Your task to perform on an android device: add a label to a message in the gmail app Image 0: 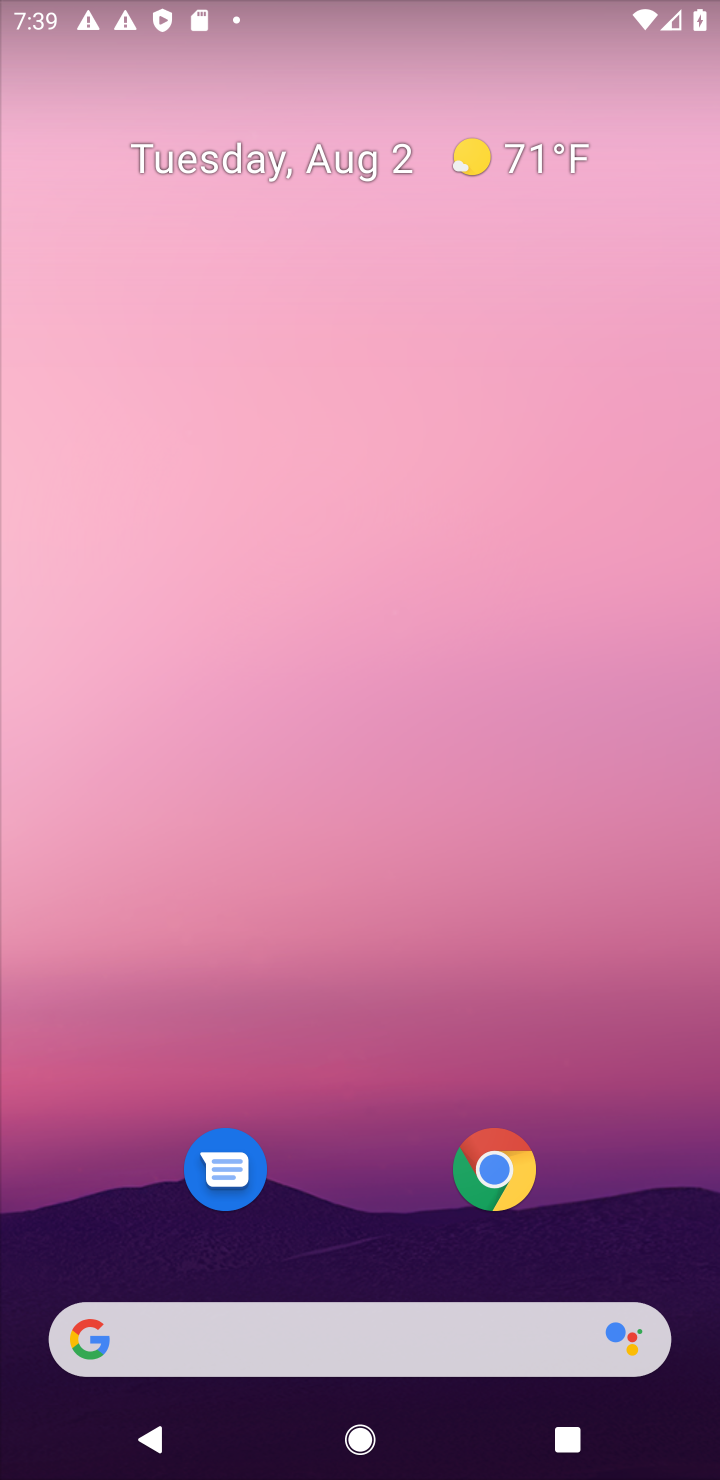
Step 0: drag from (384, 1042) to (394, 69)
Your task to perform on an android device: add a label to a message in the gmail app Image 1: 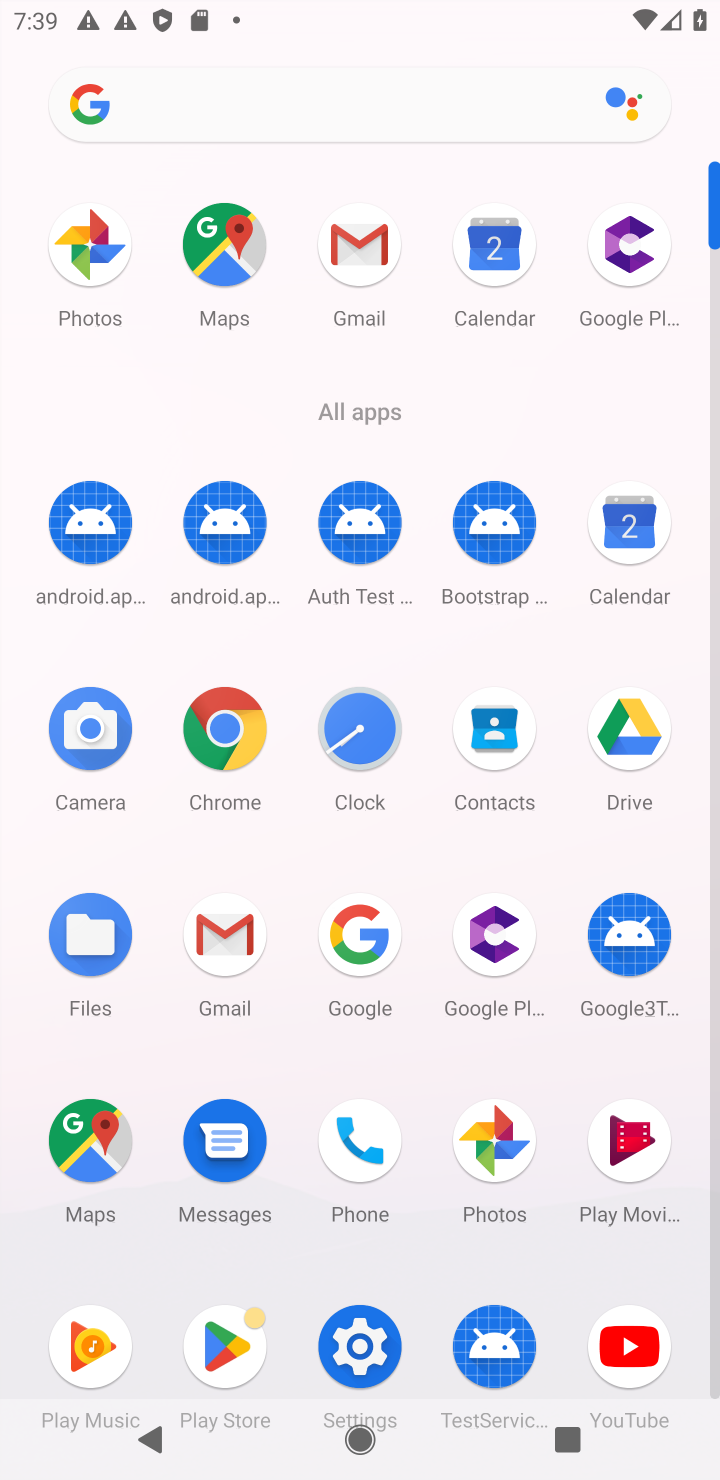
Step 1: click (371, 256)
Your task to perform on an android device: add a label to a message in the gmail app Image 2: 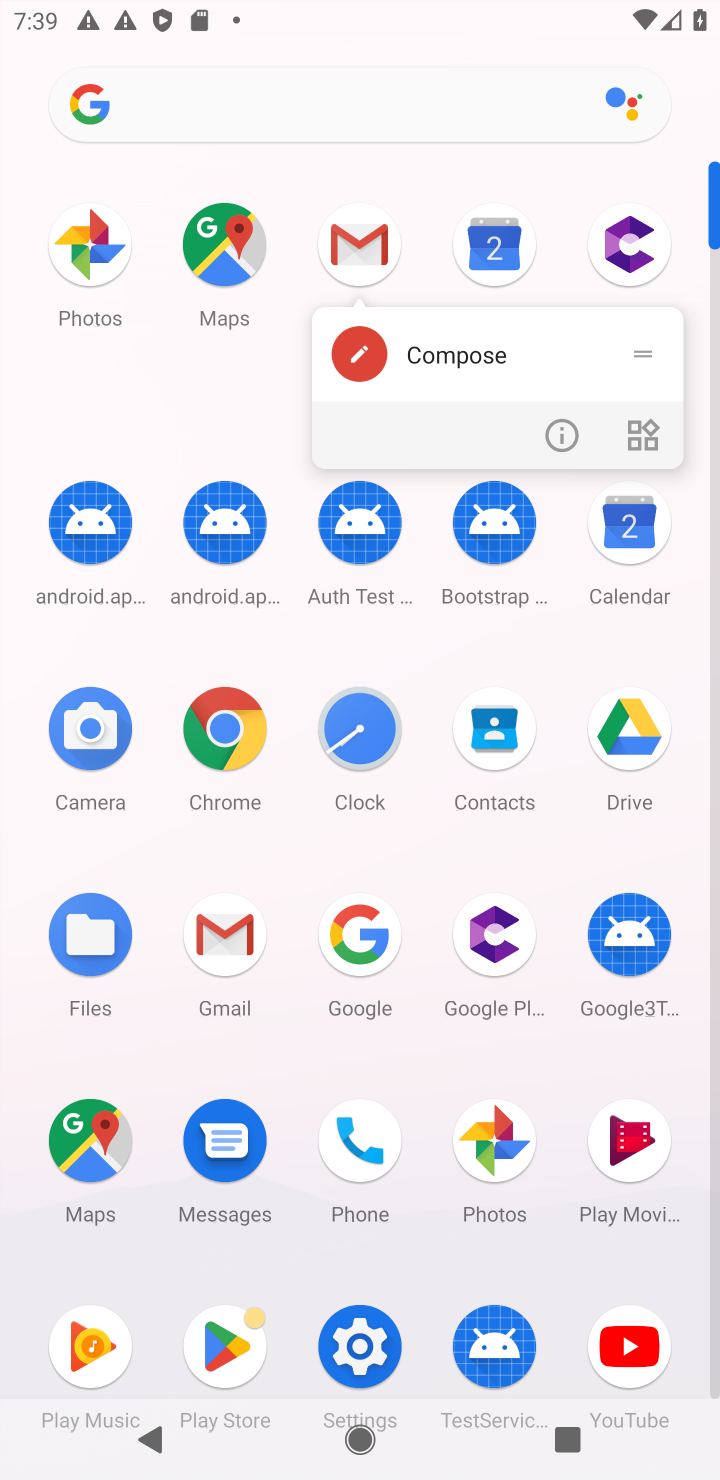
Step 2: click (371, 256)
Your task to perform on an android device: add a label to a message in the gmail app Image 3: 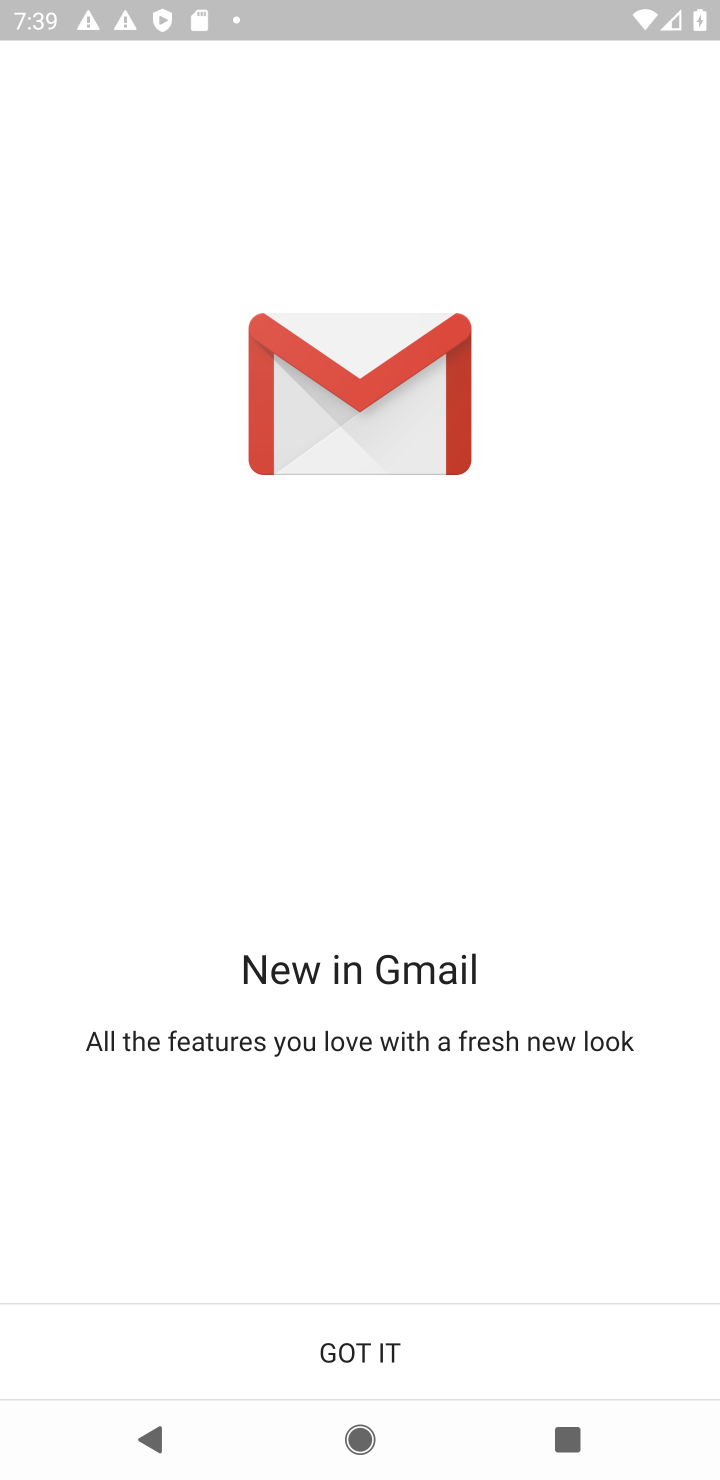
Step 3: click (430, 1340)
Your task to perform on an android device: add a label to a message in the gmail app Image 4: 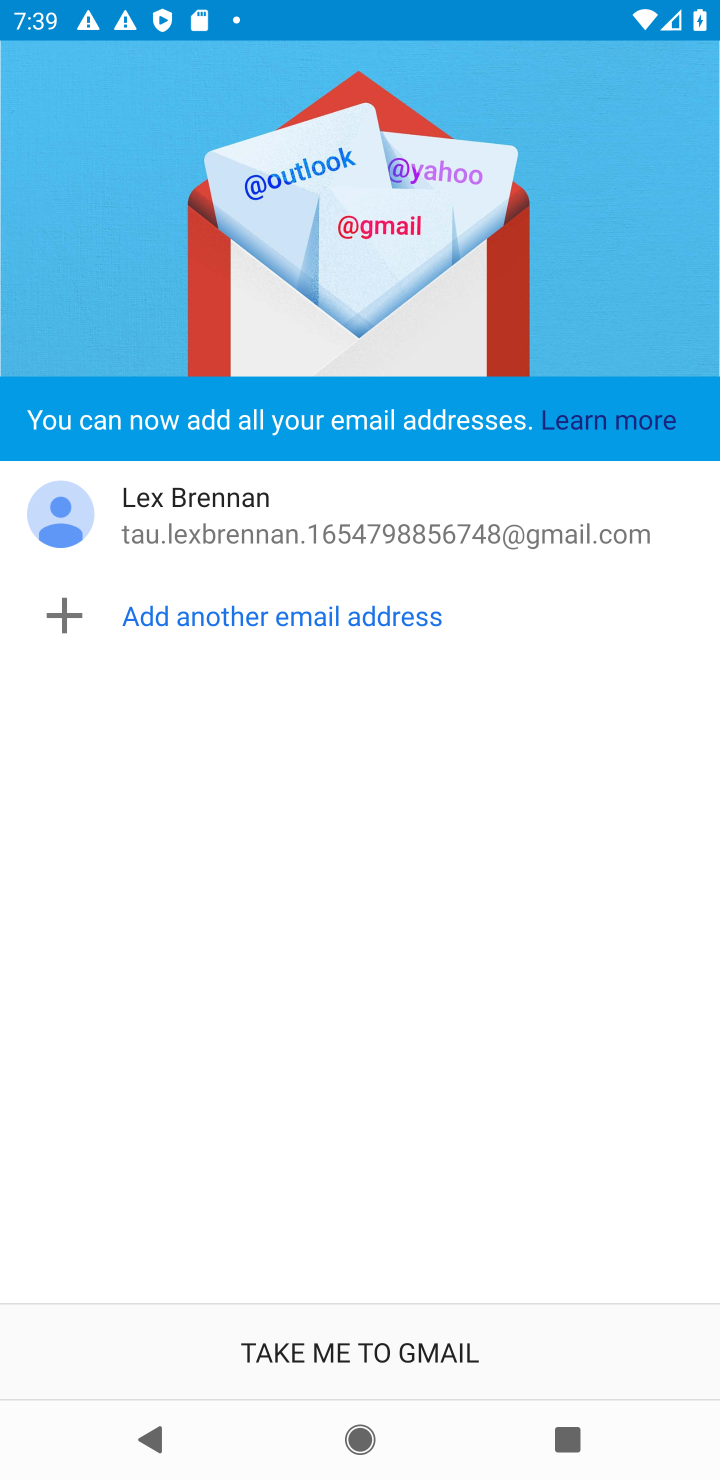
Step 4: click (433, 1340)
Your task to perform on an android device: add a label to a message in the gmail app Image 5: 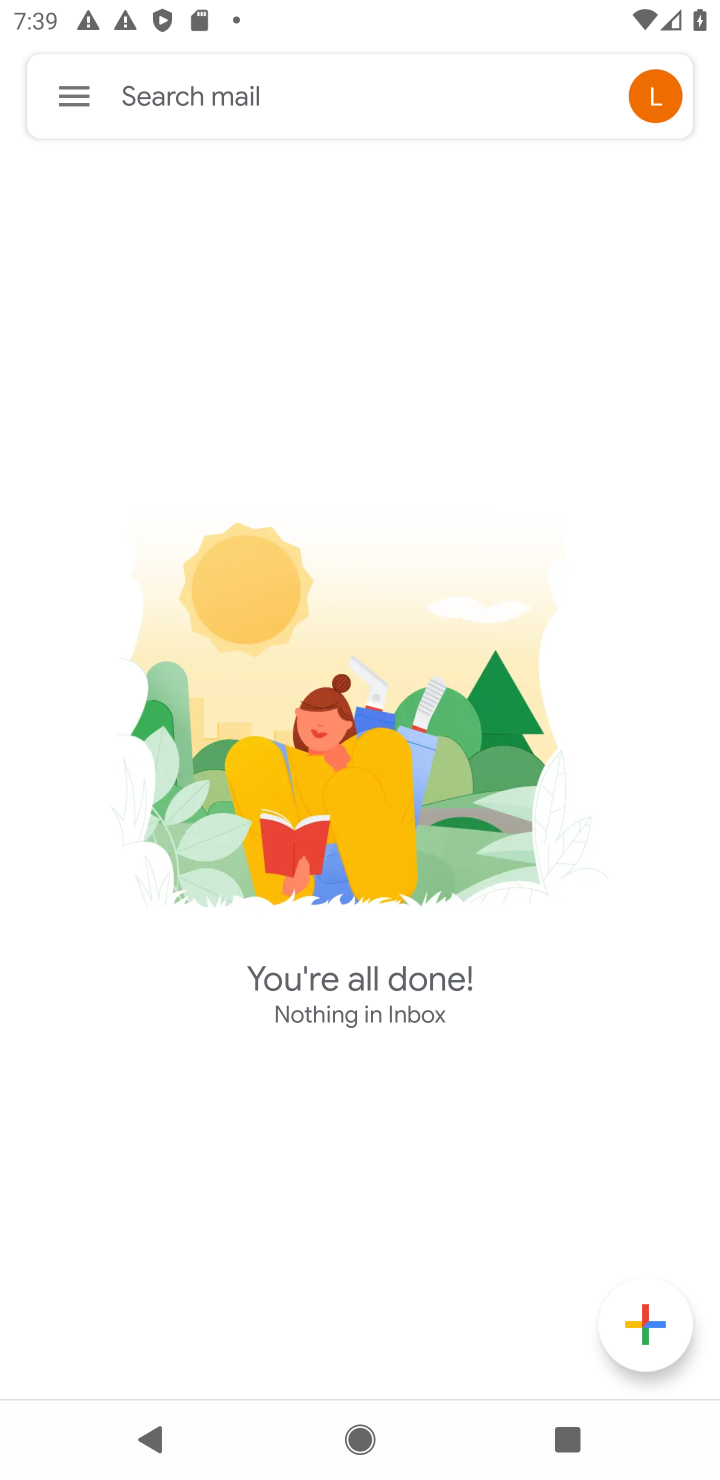
Step 5: click (71, 82)
Your task to perform on an android device: add a label to a message in the gmail app Image 6: 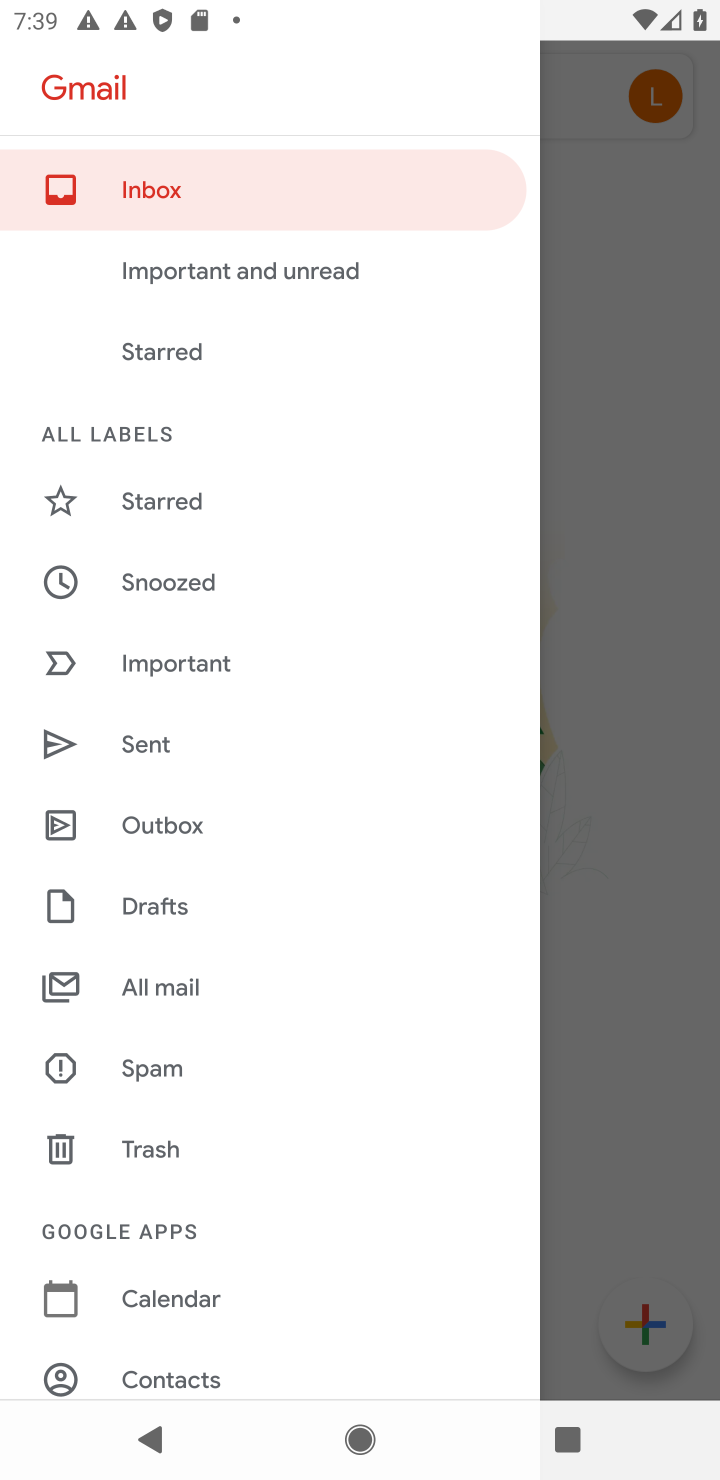
Step 6: click (182, 973)
Your task to perform on an android device: add a label to a message in the gmail app Image 7: 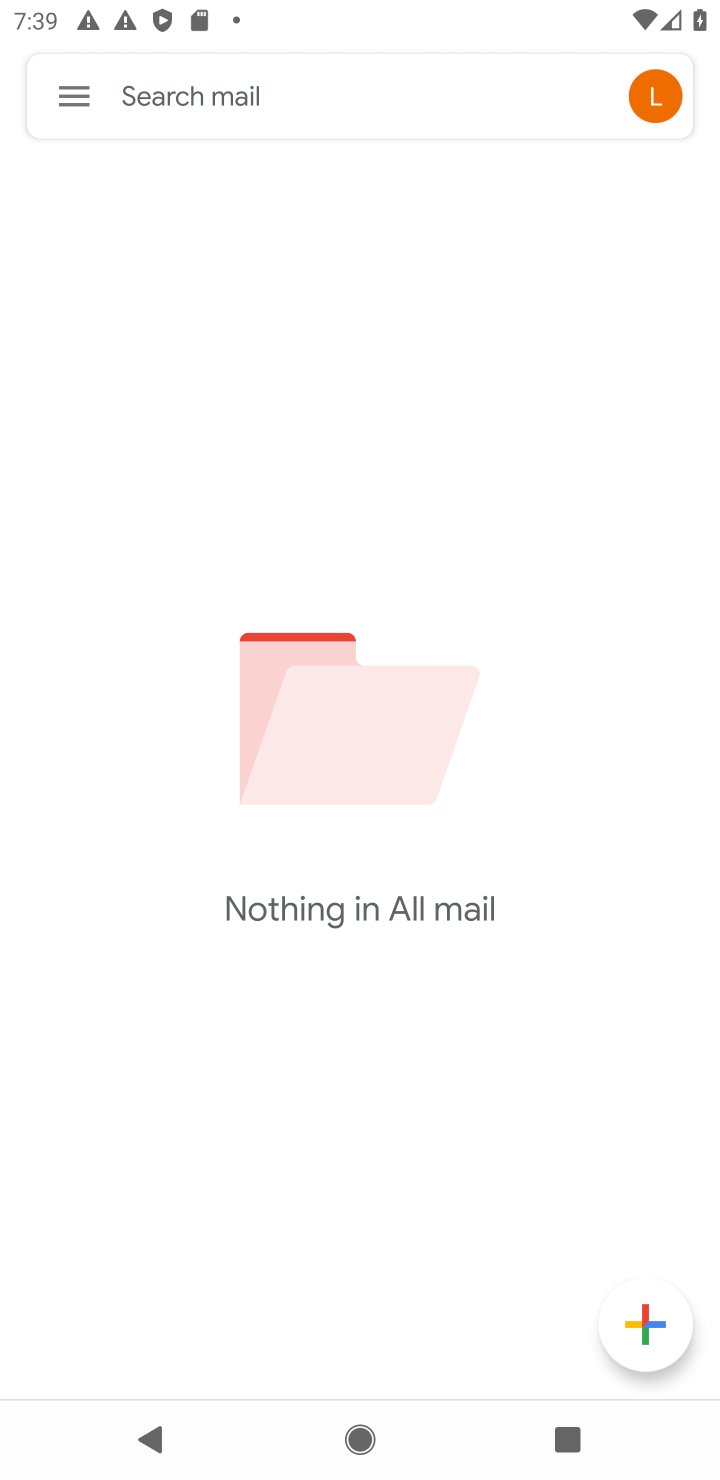
Step 7: task complete